Your task to perform on an android device: Go to calendar. Show me events next week Image 0: 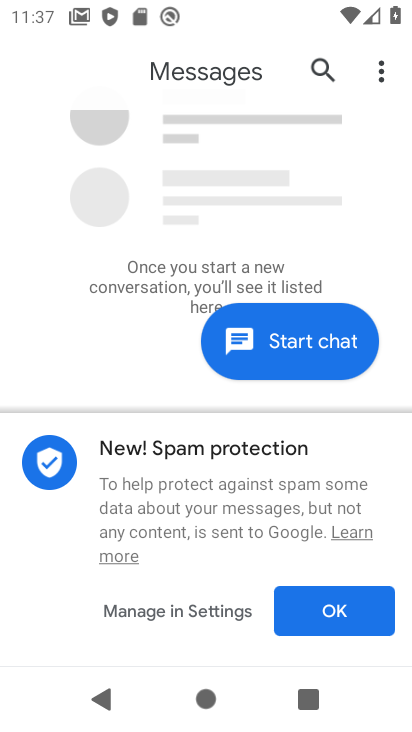
Step 0: press home button
Your task to perform on an android device: Go to calendar. Show me events next week Image 1: 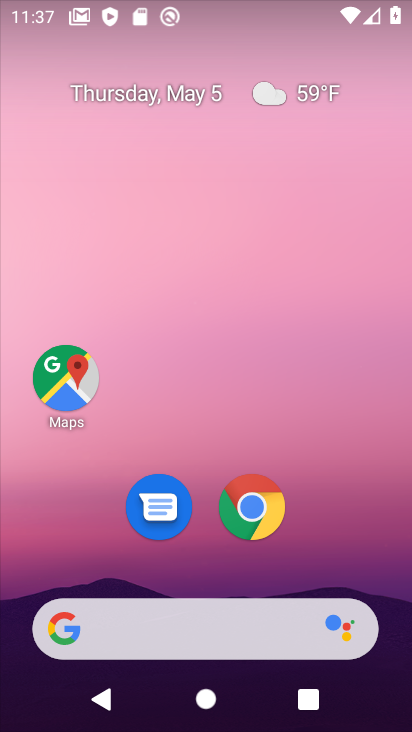
Step 1: drag from (332, 555) to (291, 60)
Your task to perform on an android device: Go to calendar. Show me events next week Image 2: 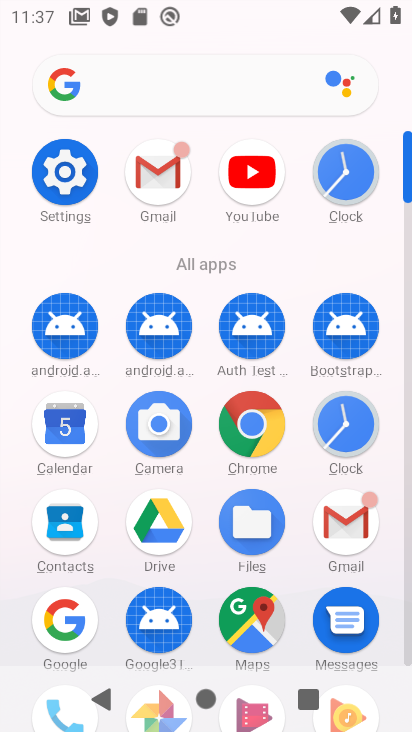
Step 2: click (70, 429)
Your task to perform on an android device: Go to calendar. Show me events next week Image 3: 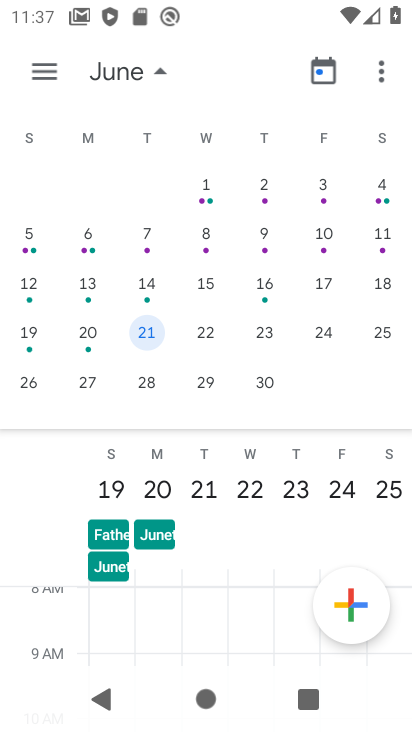
Step 3: click (157, 69)
Your task to perform on an android device: Go to calendar. Show me events next week Image 4: 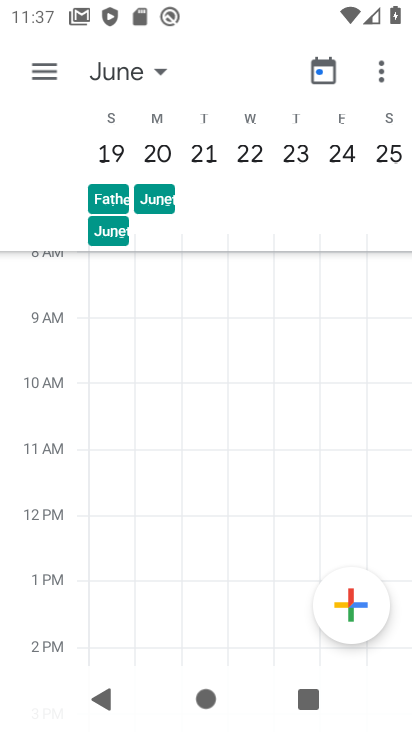
Step 4: drag from (65, 258) to (399, 147)
Your task to perform on an android device: Go to calendar. Show me events next week Image 5: 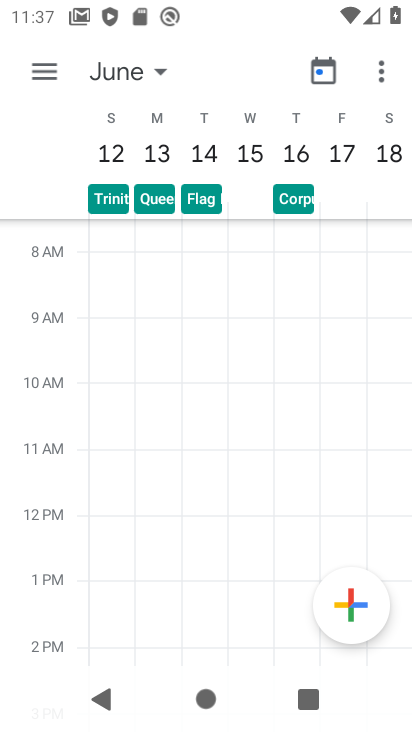
Step 5: click (159, 64)
Your task to perform on an android device: Go to calendar. Show me events next week Image 6: 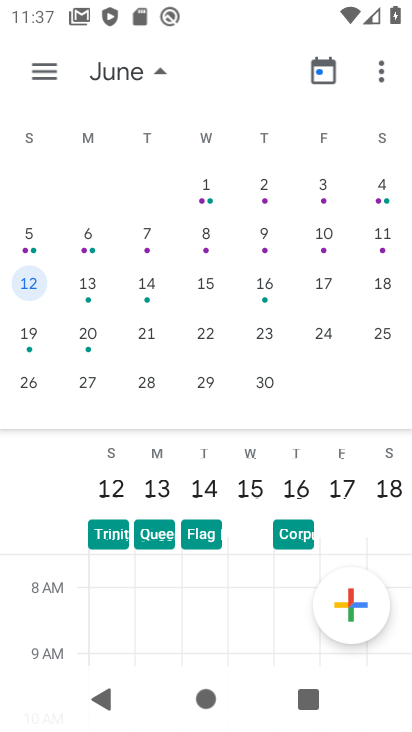
Step 6: click (80, 189)
Your task to perform on an android device: Go to calendar. Show me events next week Image 7: 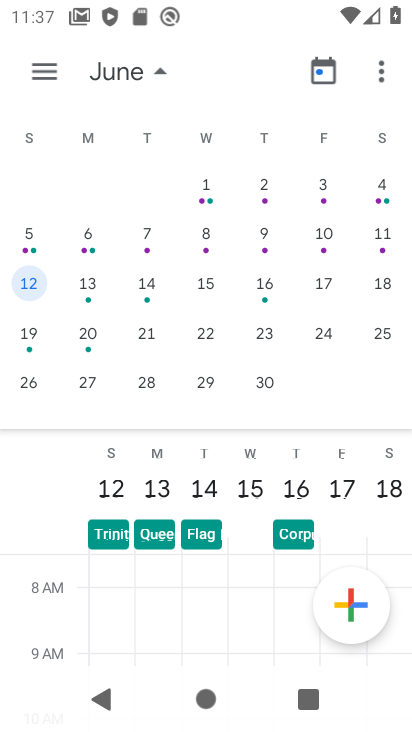
Step 7: drag from (32, 301) to (397, 192)
Your task to perform on an android device: Go to calendar. Show me events next week Image 8: 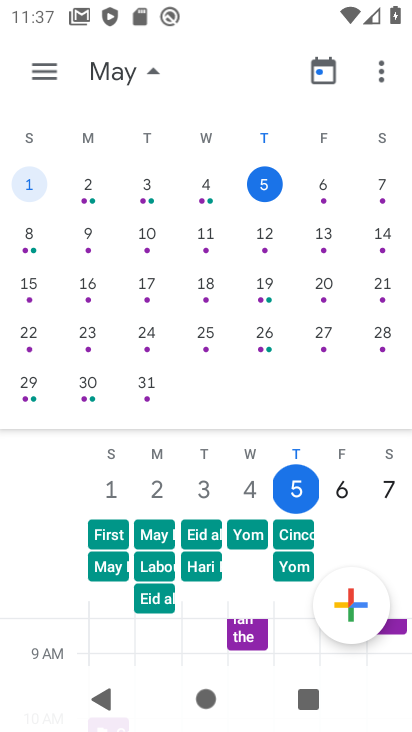
Step 8: click (25, 330)
Your task to perform on an android device: Go to calendar. Show me events next week Image 9: 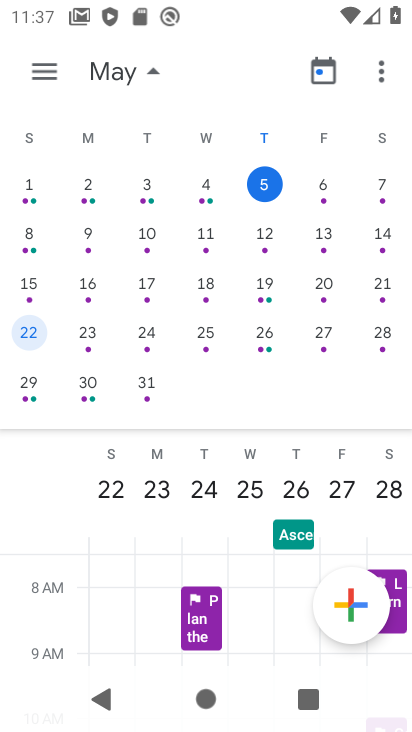
Step 9: task complete